Your task to perform on an android device: change text size in settings app Image 0: 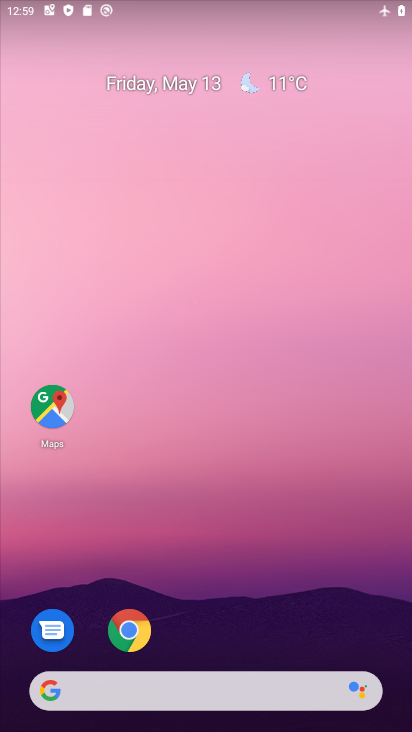
Step 0: drag from (329, 642) to (380, 10)
Your task to perform on an android device: change text size in settings app Image 1: 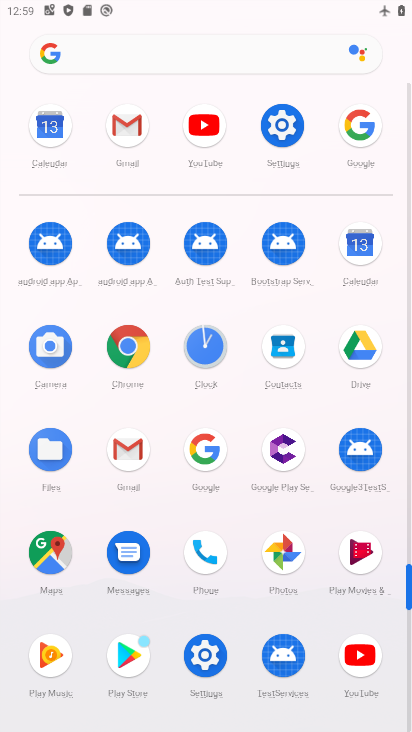
Step 1: click (282, 133)
Your task to perform on an android device: change text size in settings app Image 2: 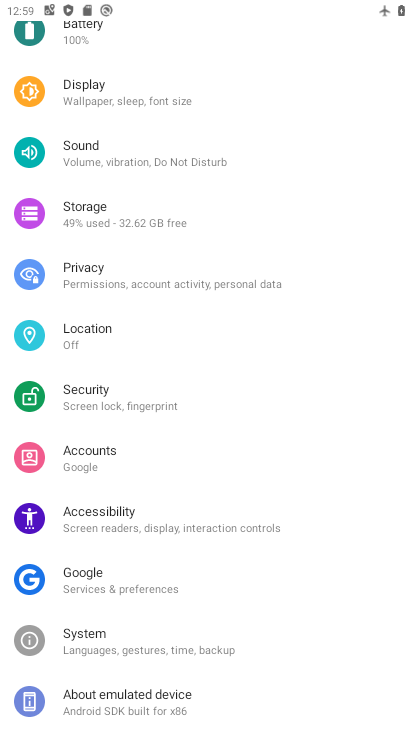
Step 2: click (105, 519)
Your task to perform on an android device: change text size in settings app Image 3: 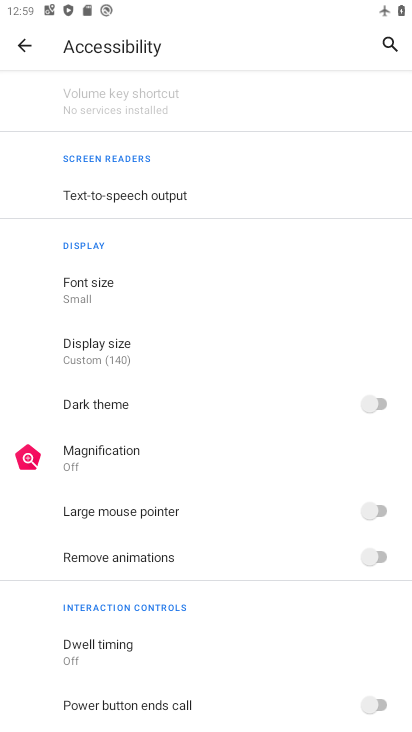
Step 3: click (86, 295)
Your task to perform on an android device: change text size in settings app Image 4: 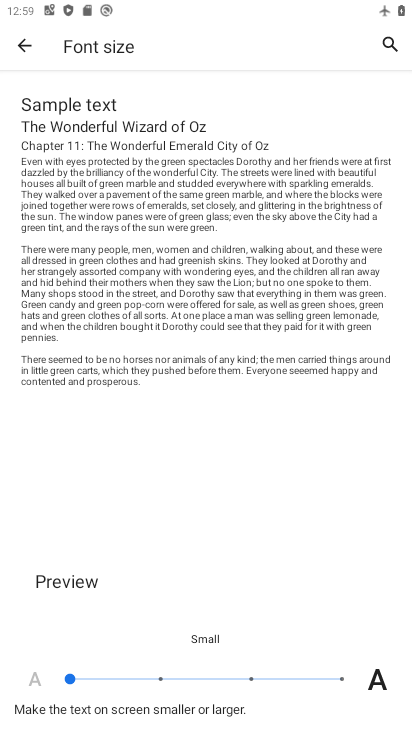
Step 4: click (161, 676)
Your task to perform on an android device: change text size in settings app Image 5: 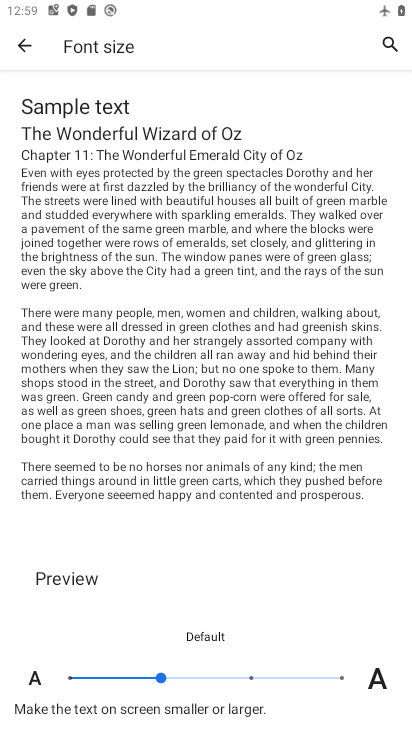
Step 5: task complete